Your task to perform on an android device: Open Google Chrome Image 0: 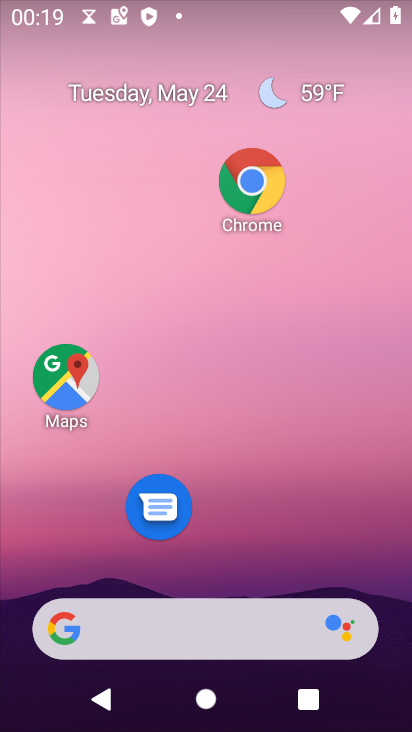
Step 0: click (253, 182)
Your task to perform on an android device: Open Google Chrome Image 1: 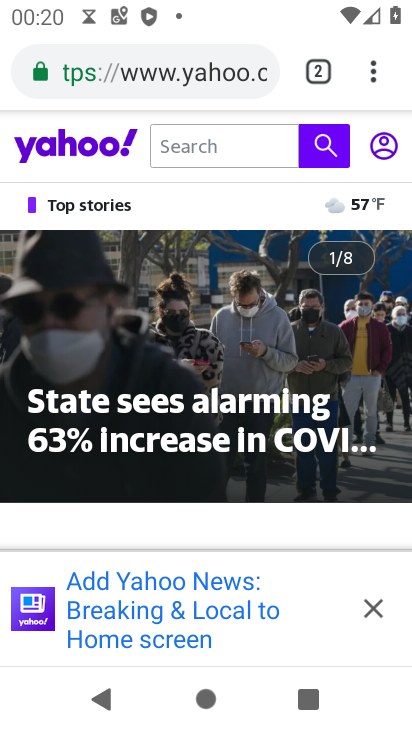
Step 1: click (379, 64)
Your task to perform on an android device: Open Google Chrome Image 2: 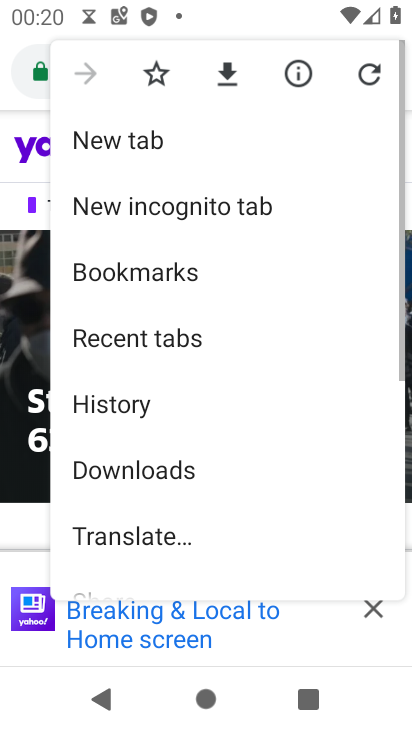
Step 2: click (195, 132)
Your task to perform on an android device: Open Google Chrome Image 3: 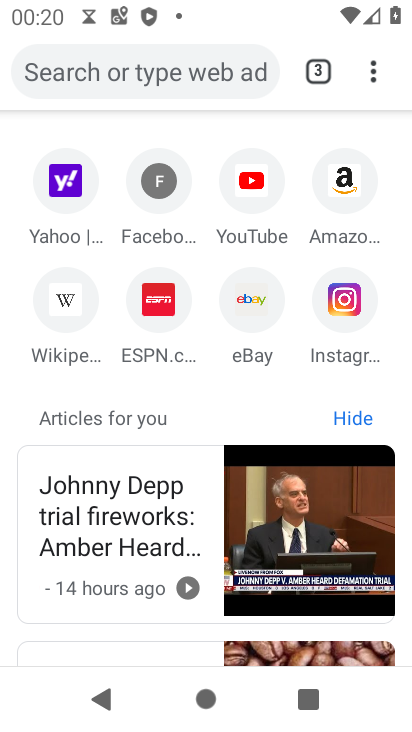
Step 3: task complete